Your task to perform on an android device: open app "eBay: The shopping marketplace" (install if not already installed) Image 0: 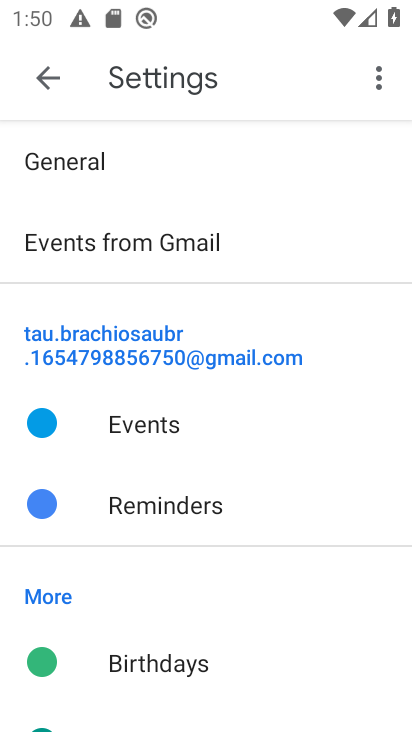
Step 0: press home button
Your task to perform on an android device: open app "eBay: The shopping marketplace" (install if not already installed) Image 1: 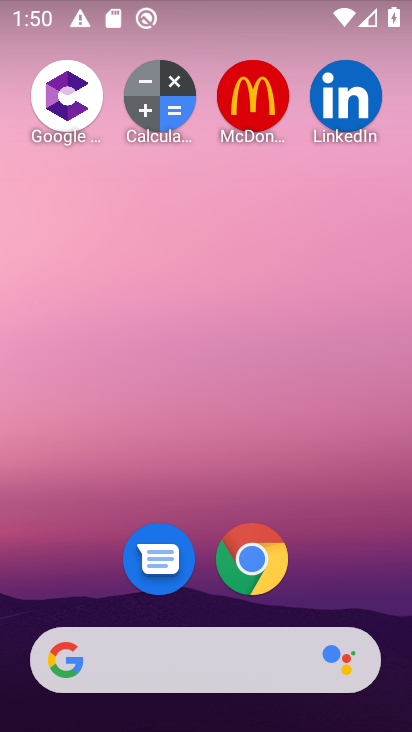
Step 1: drag from (167, 625) to (227, 116)
Your task to perform on an android device: open app "eBay: The shopping marketplace" (install if not already installed) Image 2: 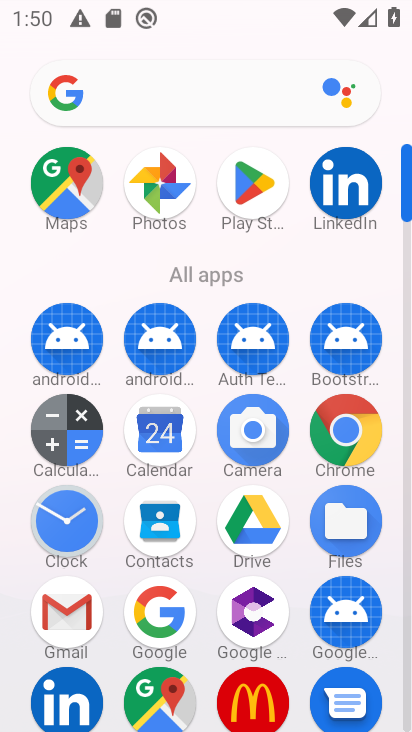
Step 2: click (248, 198)
Your task to perform on an android device: open app "eBay: The shopping marketplace" (install if not already installed) Image 3: 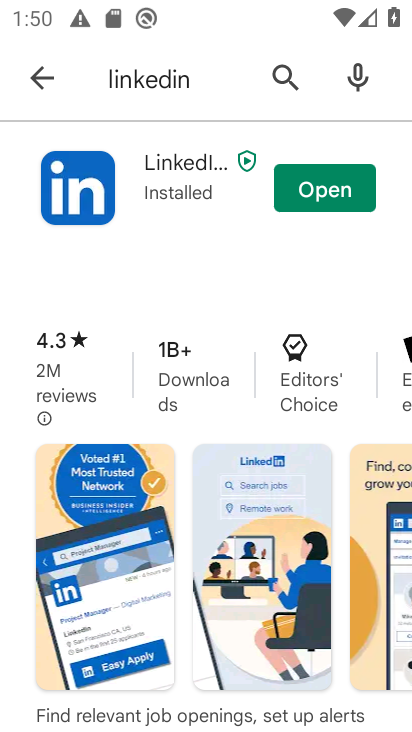
Step 3: click (275, 80)
Your task to perform on an android device: open app "eBay: The shopping marketplace" (install if not already installed) Image 4: 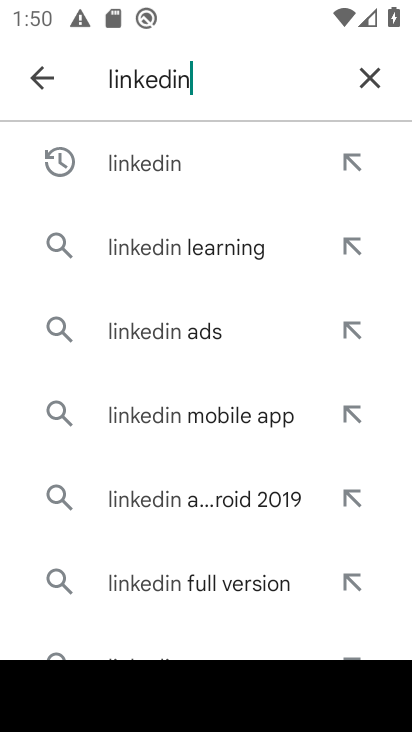
Step 4: click (366, 79)
Your task to perform on an android device: open app "eBay: The shopping marketplace" (install if not already installed) Image 5: 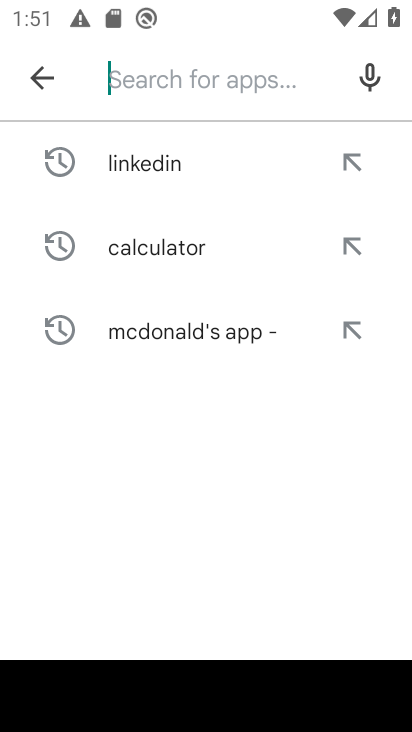
Step 5: type "eBay: The shopping marketplace"
Your task to perform on an android device: open app "eBay: The shopping marketplace" (install if not already installed) Image 6: 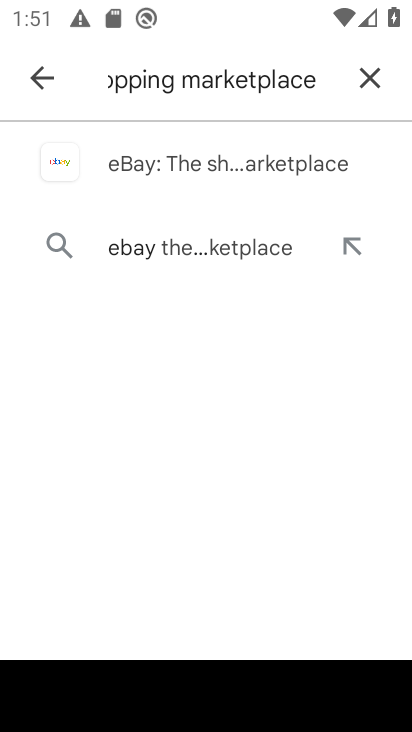
Step 6: click (231, 160)
Your task to perform on an android device: open app "eBay: The shopping marketplace" (install if not already installed) Image 7: 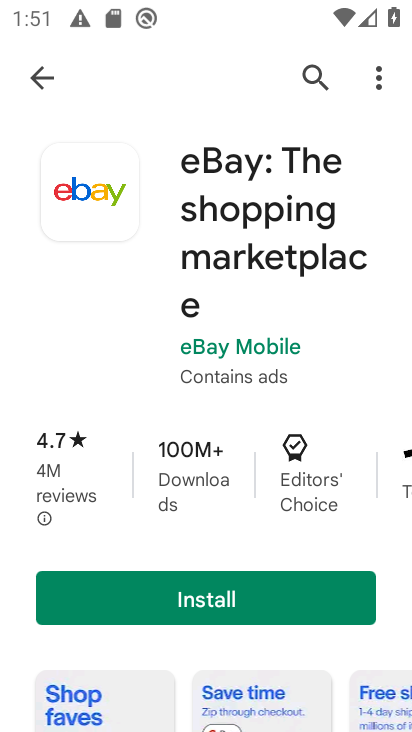
Step 7: click (235, 590)
Your task to perform on an android device: open app "eBay: The shopping marketplace" (install if not already installed) Image 8: 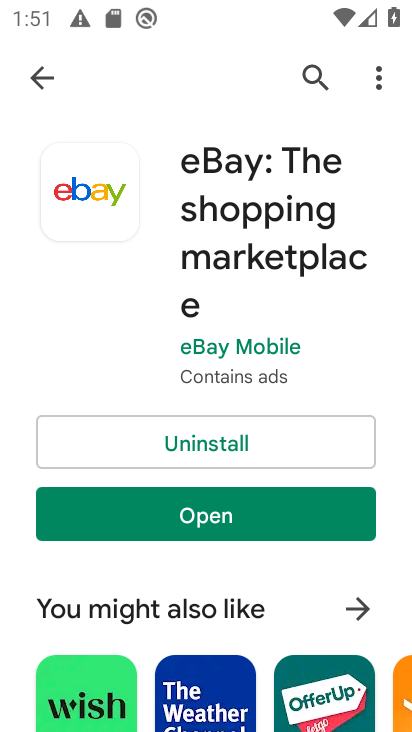
Step 8: click (204, 523)
Your task to perform on an android device: open app "eBay: The shopping marketplace" (install if not already installed) Image 9: 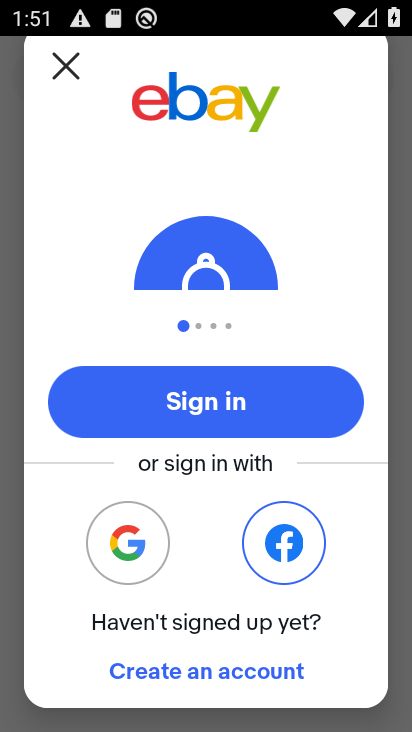
Step 9: task complete